Your task to perform on an android device: Find coffee shops on Maps Image 0: 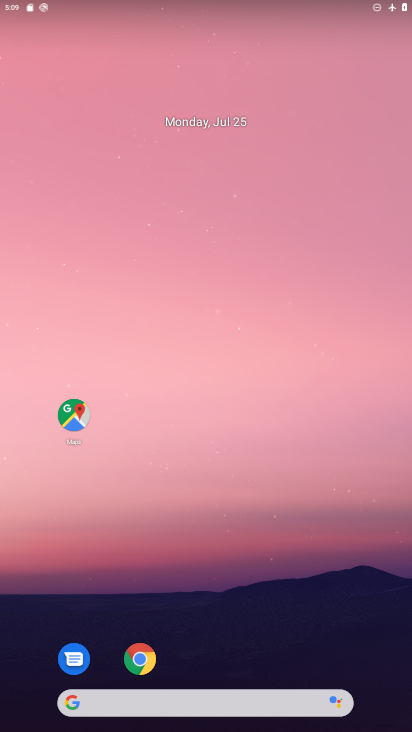
Step 0: drag from (342, 659) to (289, 44)
Your task to perform on an android device: Find coffee shops on Maps Image 1: 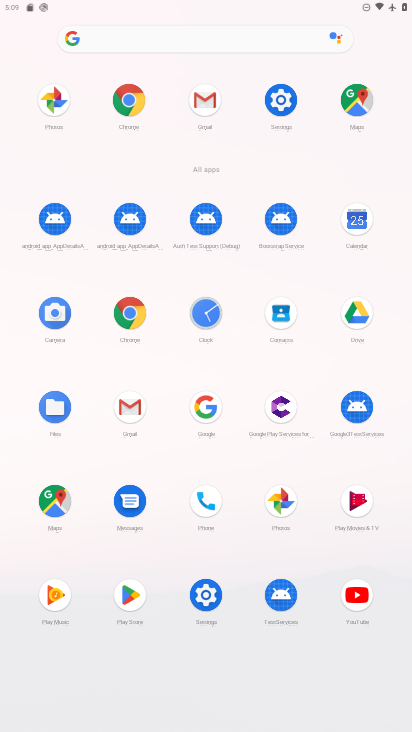
Step 1: click (356, 103)
Your task to perform on an android device: Find coffee shops on Maps Image 2: 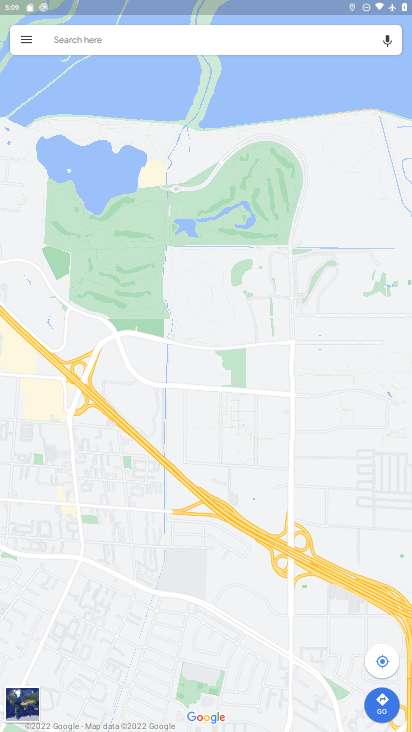
Step 2: click (138, 43)
Your task to perform on an android device: Find coffee shops on Maps Image 3: 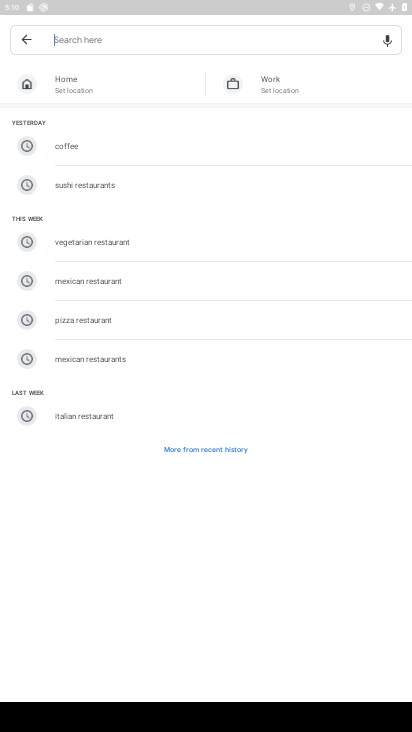
Step 3: click (238, 155)
Your task to perform on an android device: Find coffee shops on Maps Image 4: 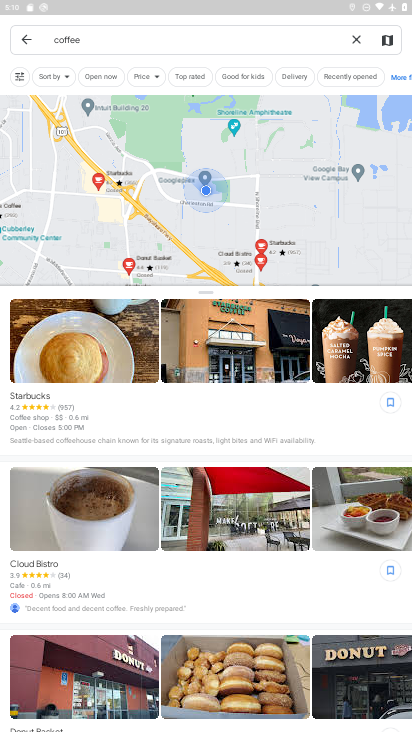
Step 4: task complete